Your task to perform on an android device: Go to eBay Image 0: 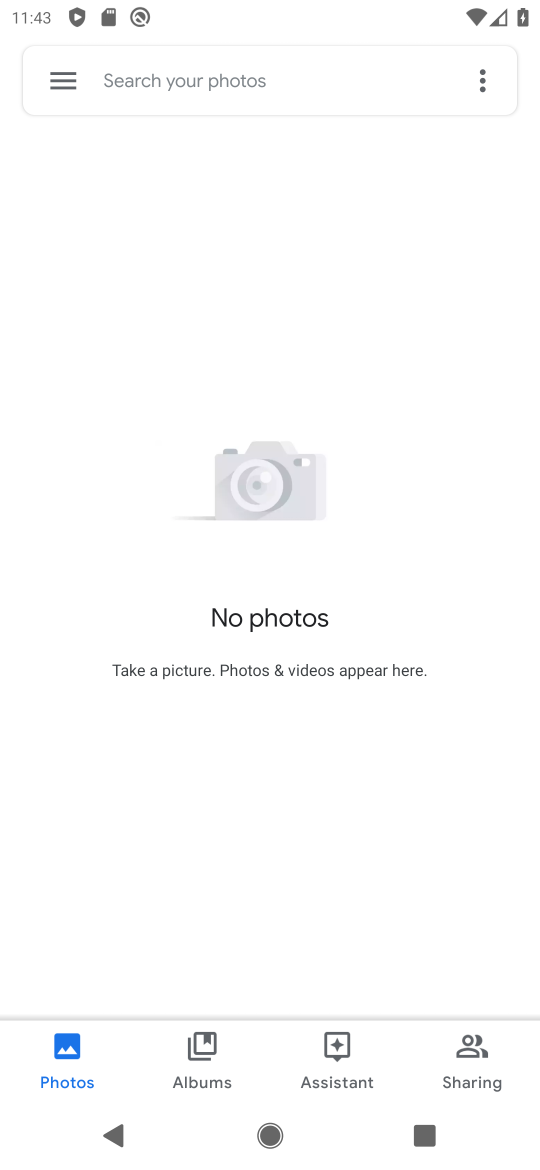
Step 0: press home button
Your task to perform on an android device: Go to eBay Image 1: 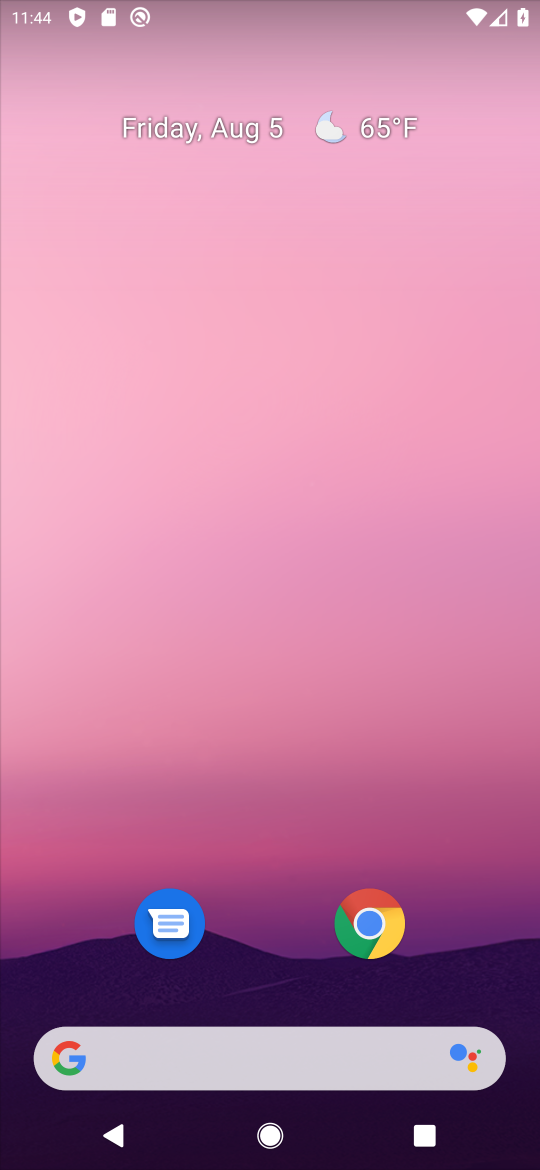
Step 1: click (348, 926)
Your task to perform on an android device: Go to eBay Image 2: 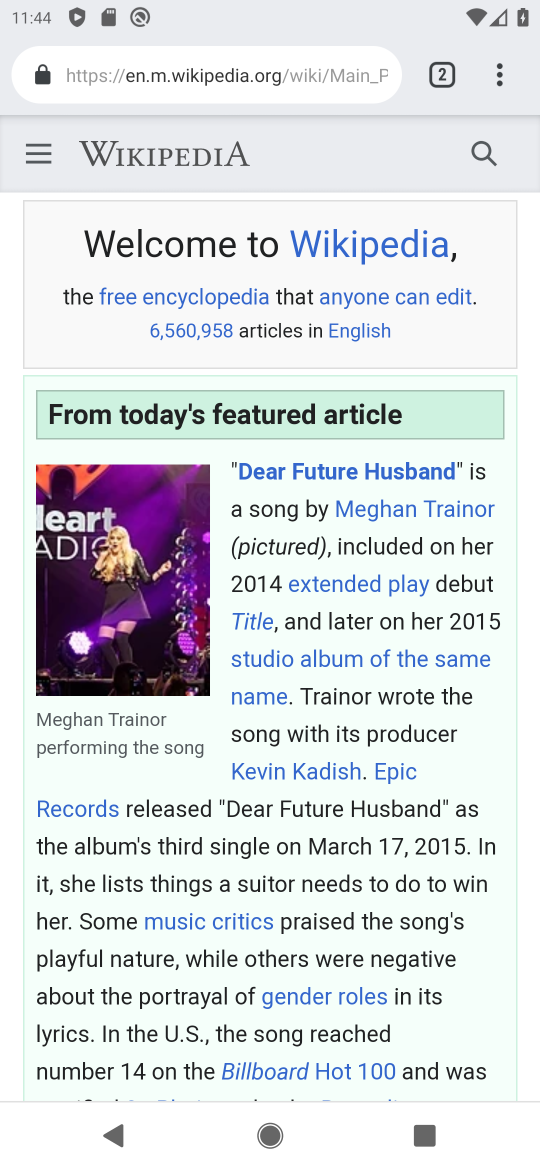
Step 2: click (448, 68)
Your task to perform on an android device: Go to eBay Image 3: 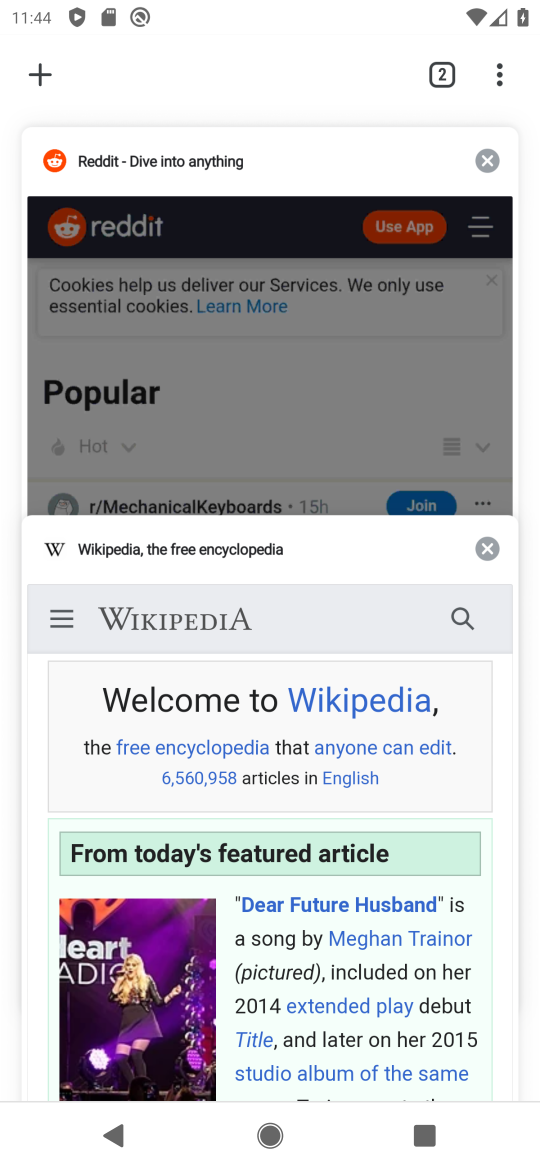
Step 3: click (26, 70)
Your task to perform on an android device: Go to eBay Image 4: 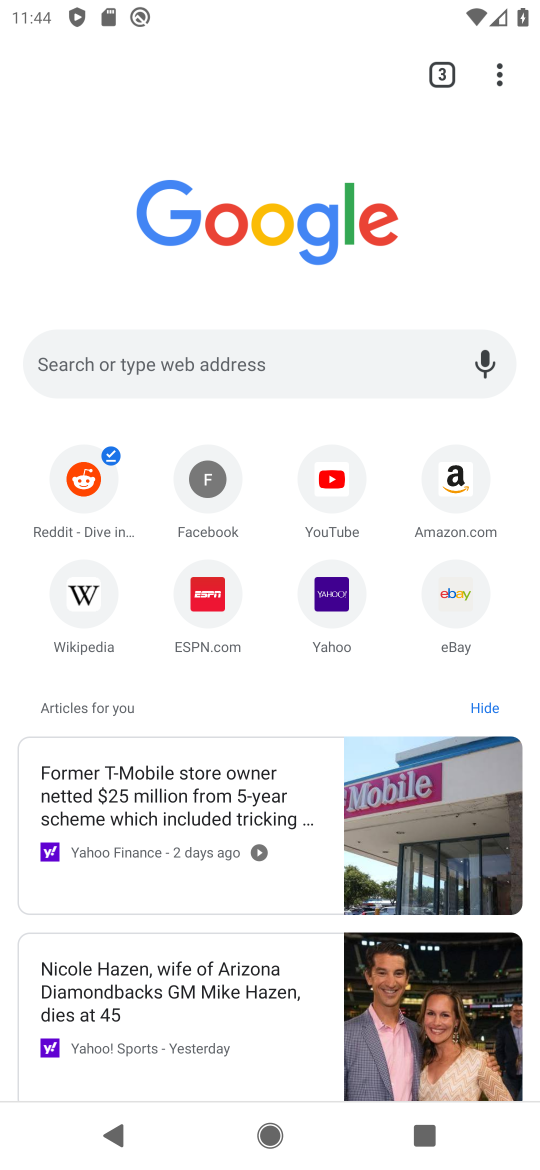
Step 4: click (457, 612)
Your task to perform on an android device: Go to eBay Image 5: 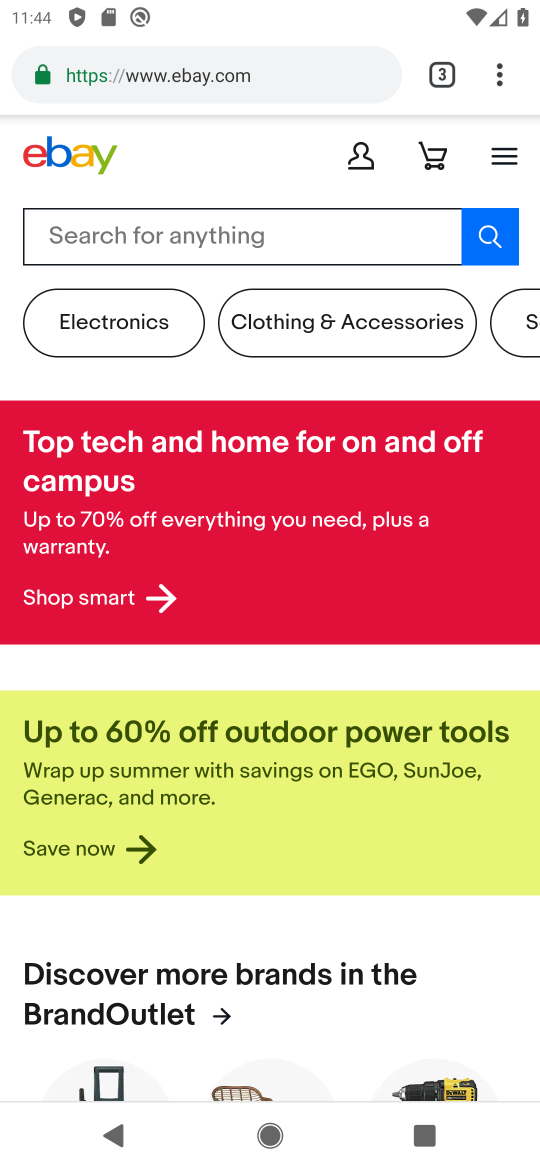
Step 5: task complete